Your task to perform on an android device: What is the capital of Switzerland? Image 0: 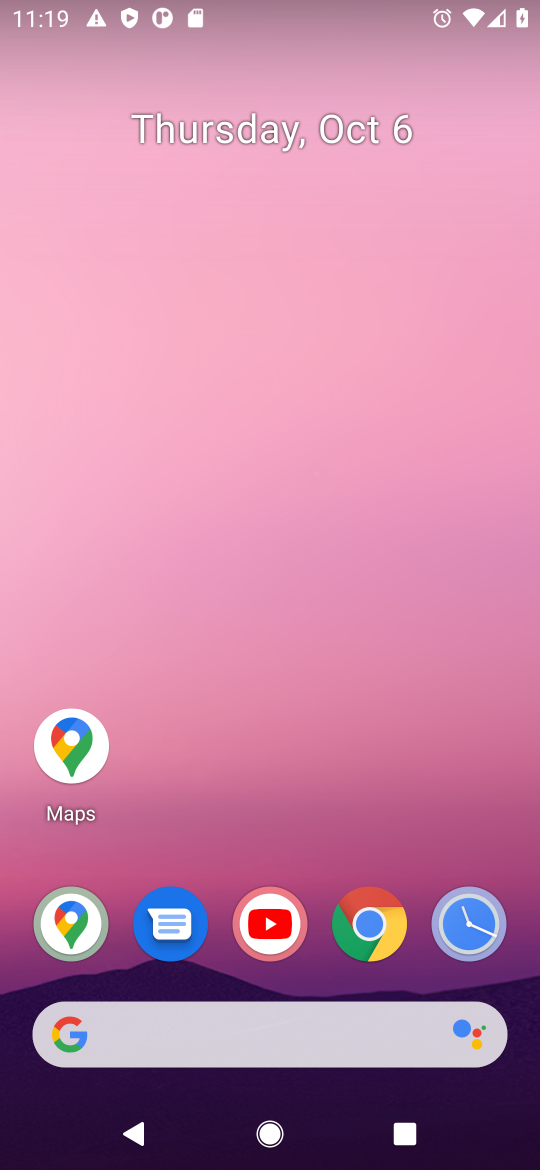
Step 0: click (366, 934)
Your task to perform on an android device: What is the capital of Switzerland? Image 1: 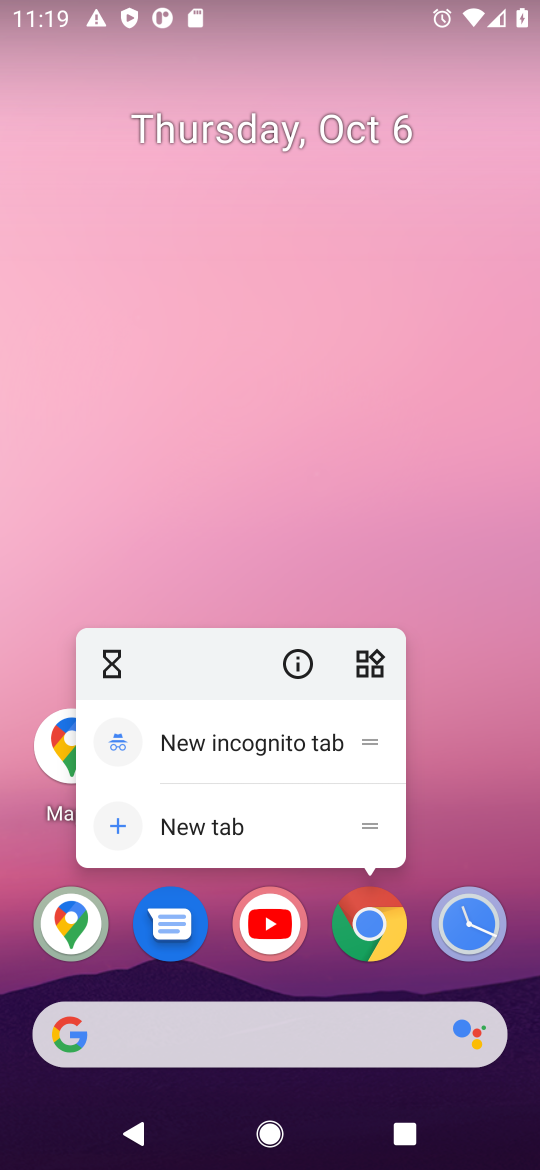
Step 1: click (371, 937)
Your task to perform on an android device: What is the capital of Switzerland? Image 2: 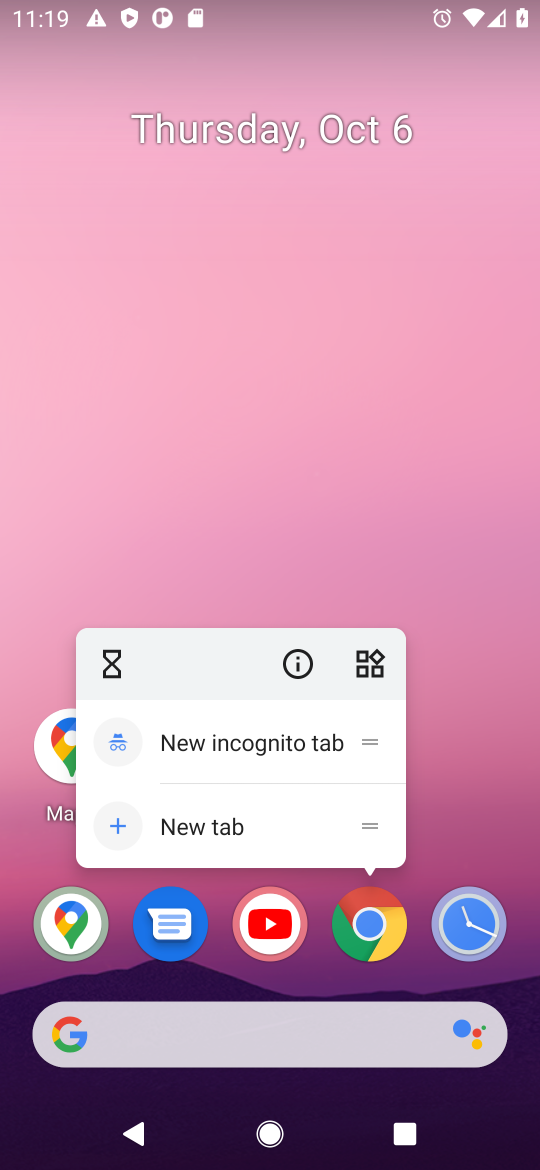
Step 2: click (371, 940)
Your task to perform on an android device: What is the capital of Switzerland? Image 3: 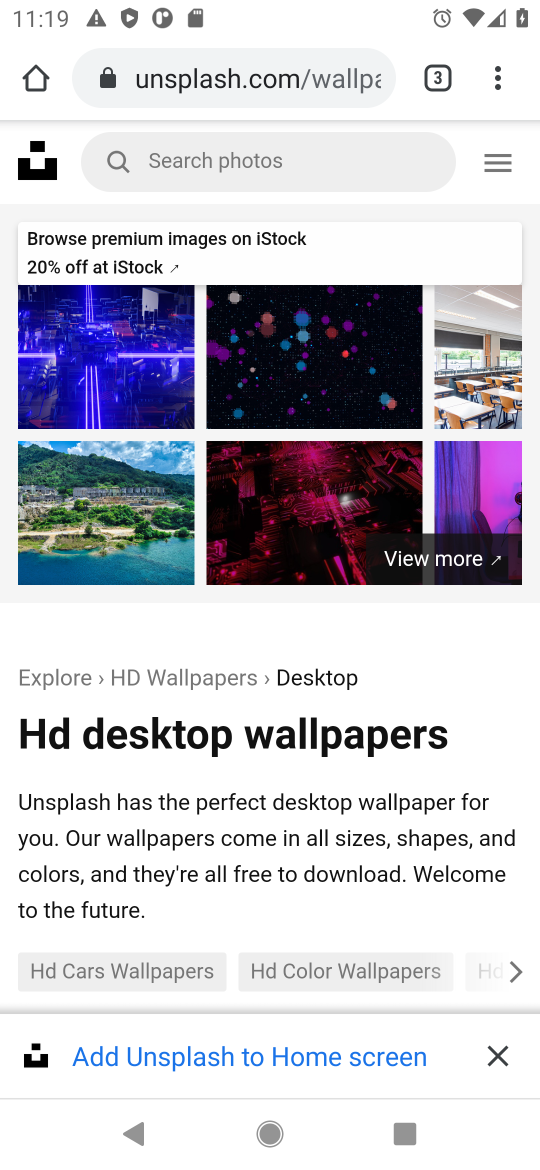
Step 3: click (302, 81)
Your task to perform on an android device: What is the capital of Switzerland? Image 4: 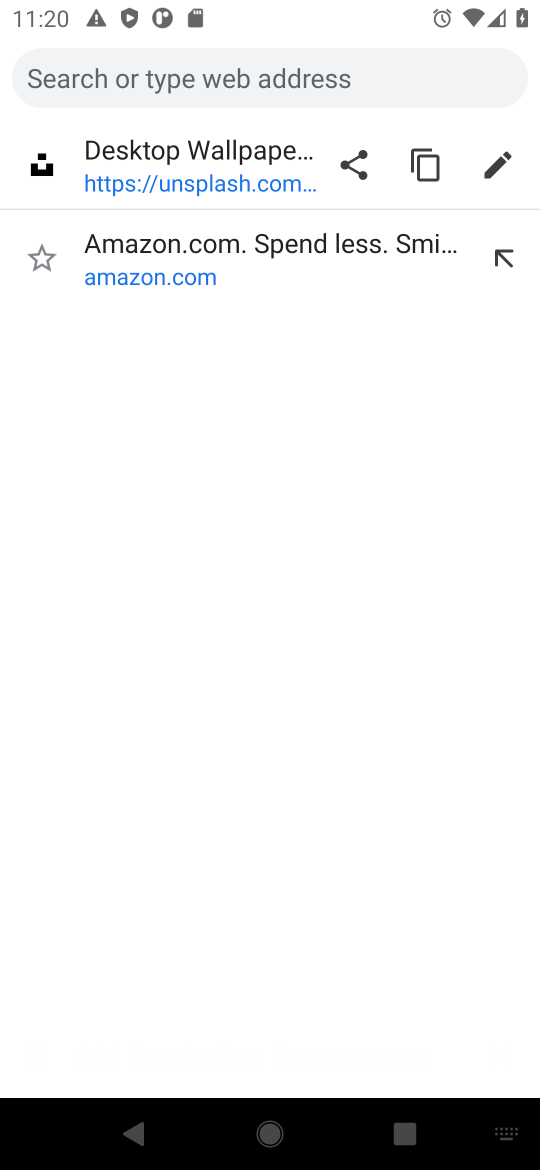
Step 4: type "capital of Switzerland"
Your task to perform on an android device: What is the capital of Switzerland? Image 5: 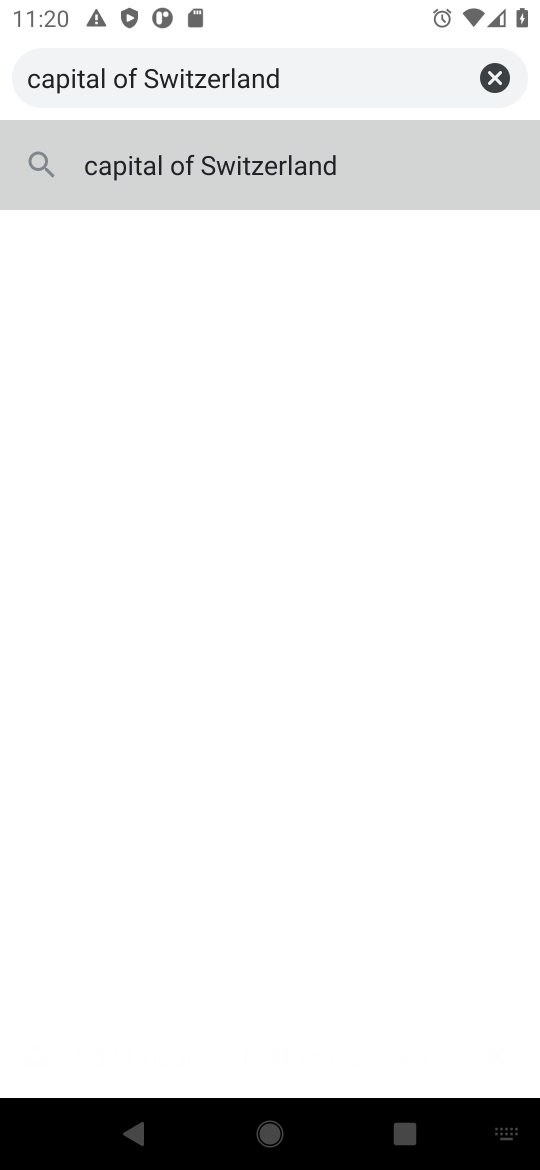
Step 5: press enter
Your task to perform on an android device: What is the capital of Switzerland? Image 6: 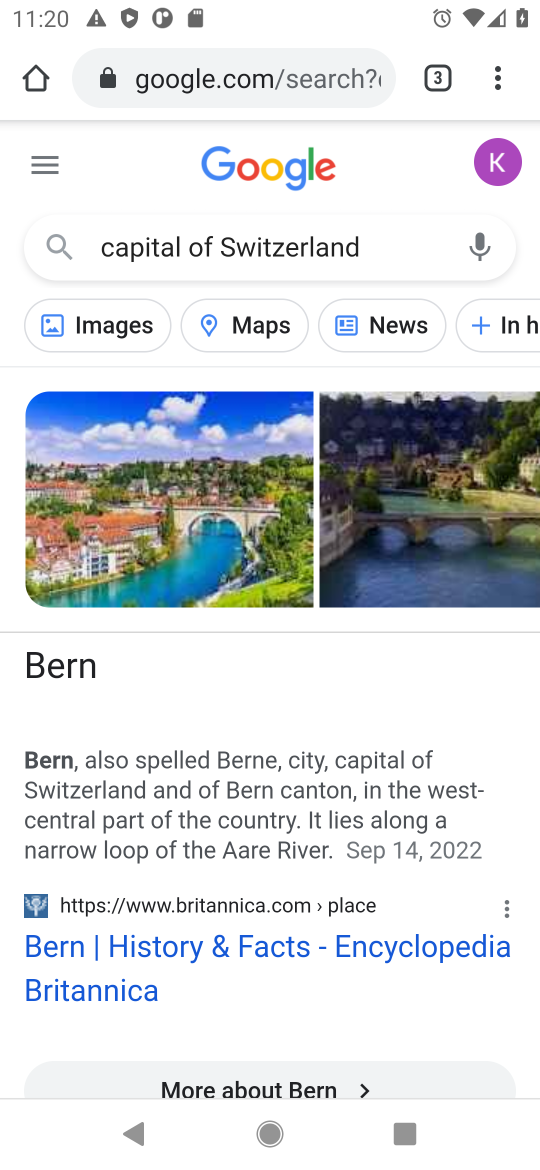
Step 6: click (181, 167)
Your task to perform on an android device: What is the capital of Switzerland? Image 7: 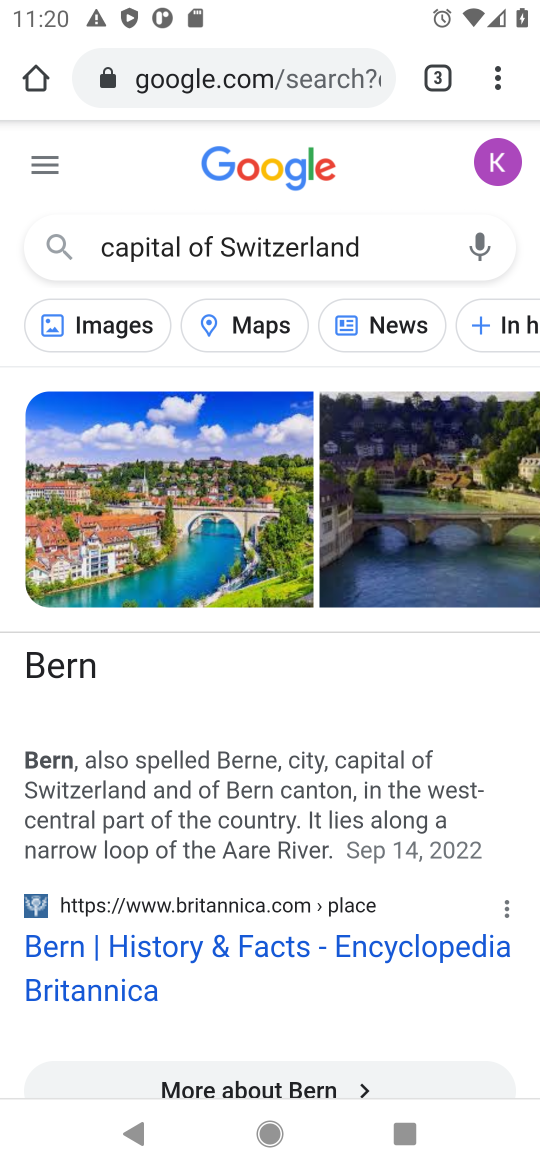
Step 7: drag from (144, 848) to (339, 281)
Your task to perform on an android device: What is the capital of Switzerland? Image 8: 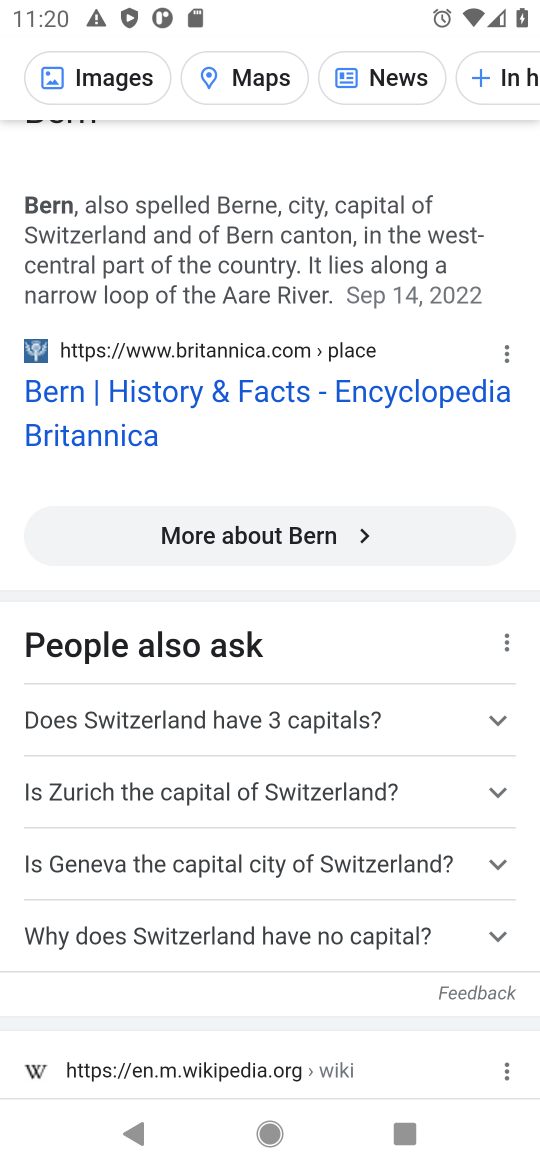
Step 8: click (185, 393)
Your task to perform on an android device: What is the capital of Switzerland? Image 9: 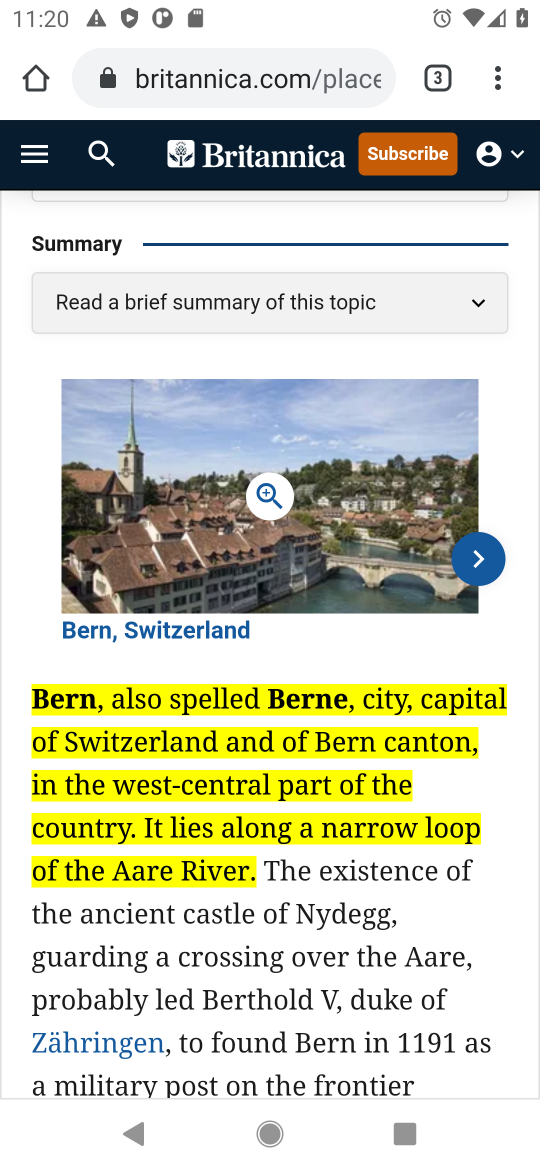
Step 9: drag from (269, 973) to (405, 591)
Your task to perform on an android device: What is the capital of Switzerland? Image 10: 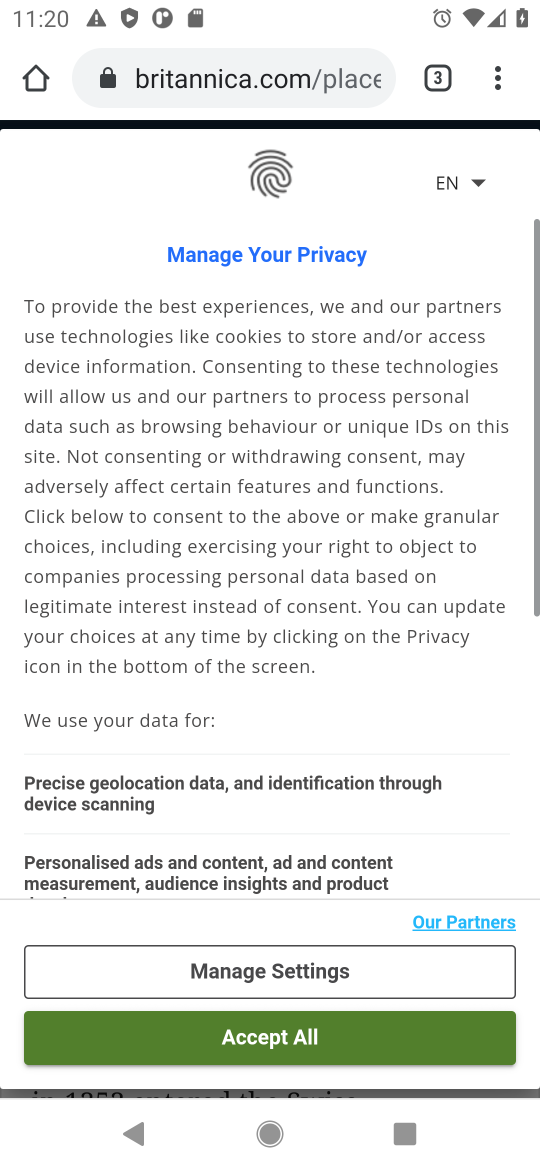
Step 10: click (296, 1035)
Your task to perform on an android device: What is the capital of Switzerland? Image 11: 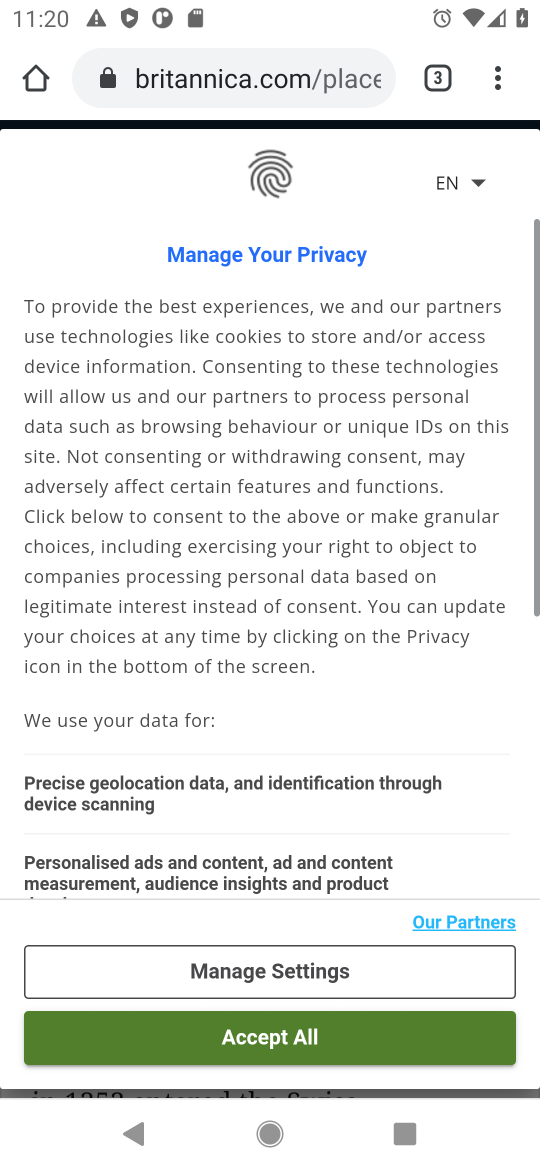
Step 11: click (272, 1038)
Your task to perform on an android device: What is the capital of Switzerland? Image 12: 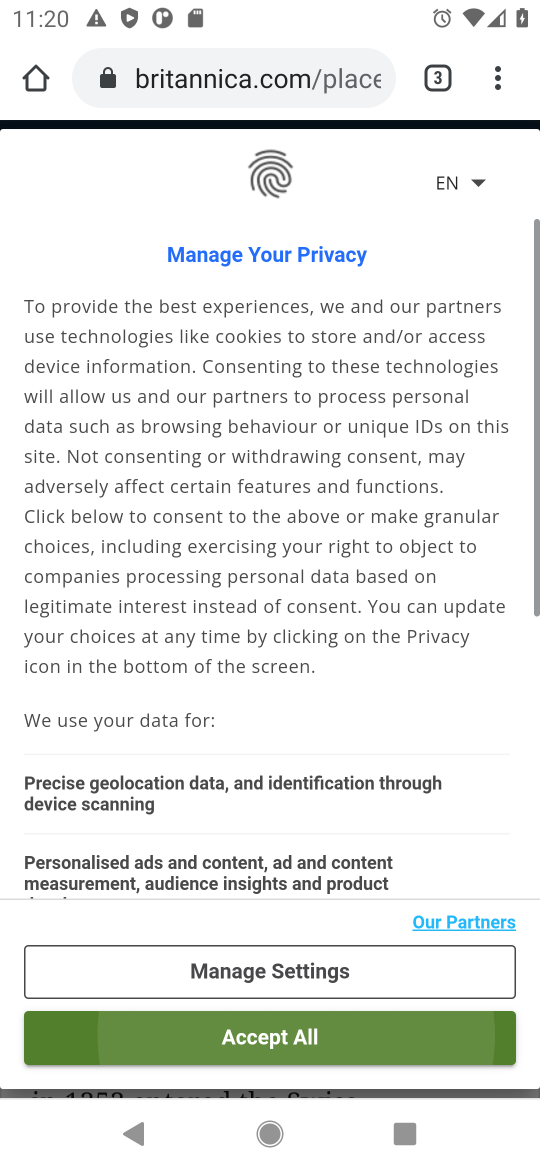
Step 12: click (263, 1037)
Your task to perform on an android device: What is the capital of Switzerland? Image 13: 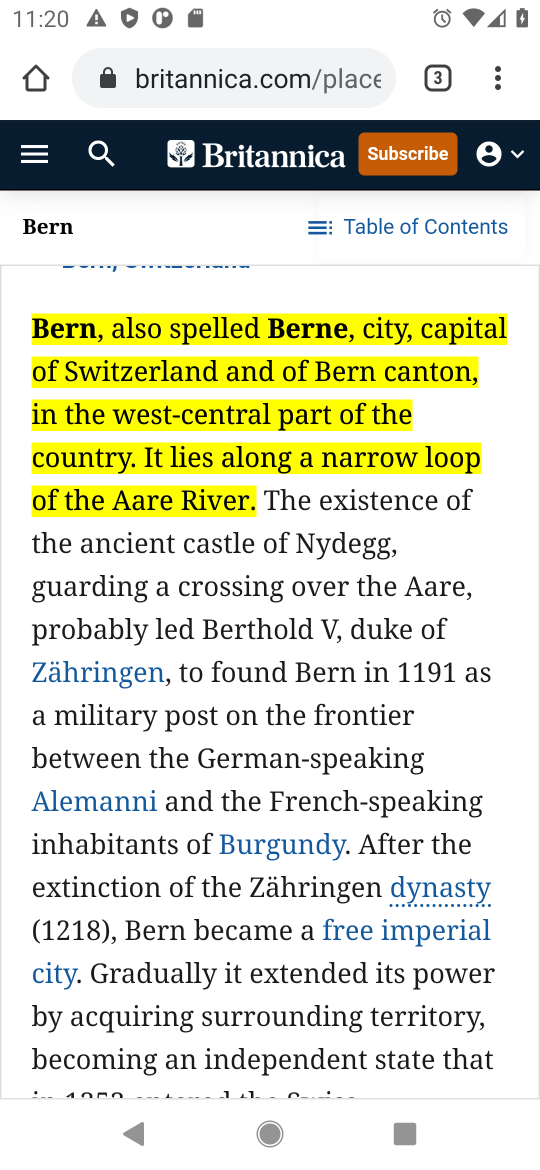
Step 13: task complete